Your task to perform on an android device: Show the shopping cart on target.com. Image 0: 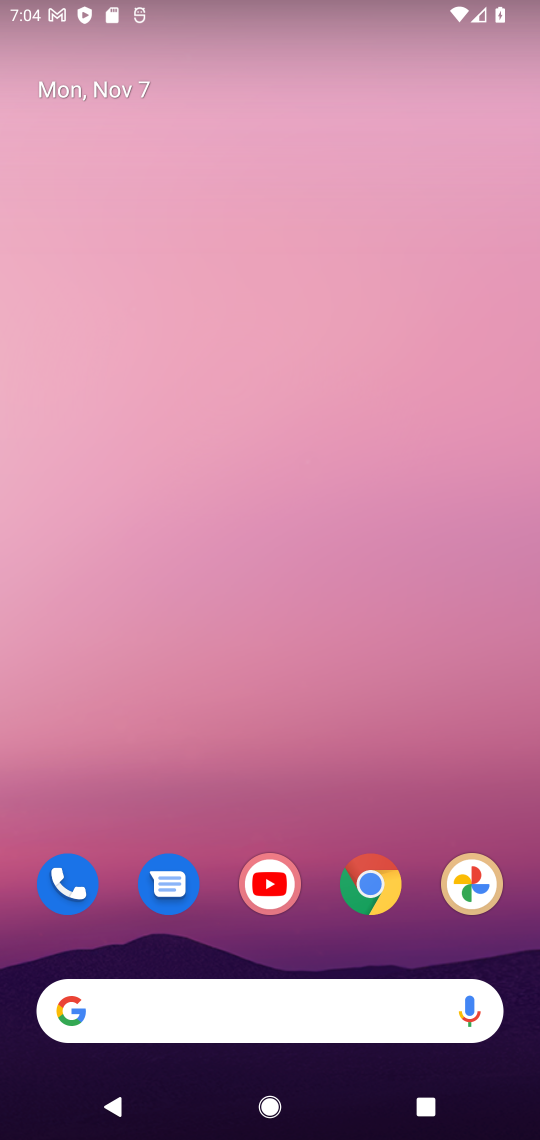
Step 0: click (368, 887)
Your task to perform on an android device: Show the shopping cart on target.com. Image 1: 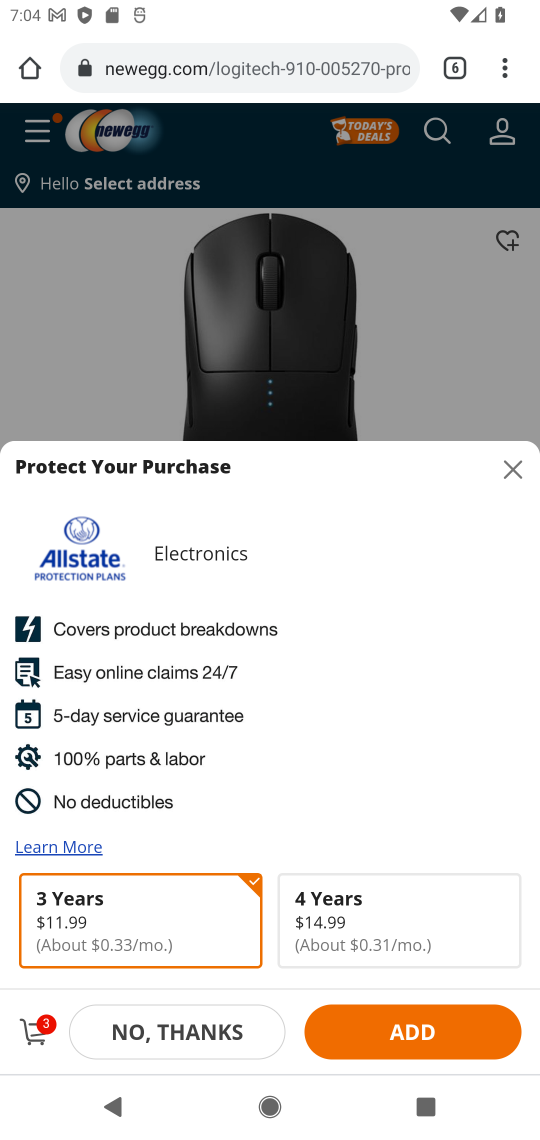
Step 1: click (516, 471)
Your task to perform on an android device: Show the shopping cart on target.com. Image 2: 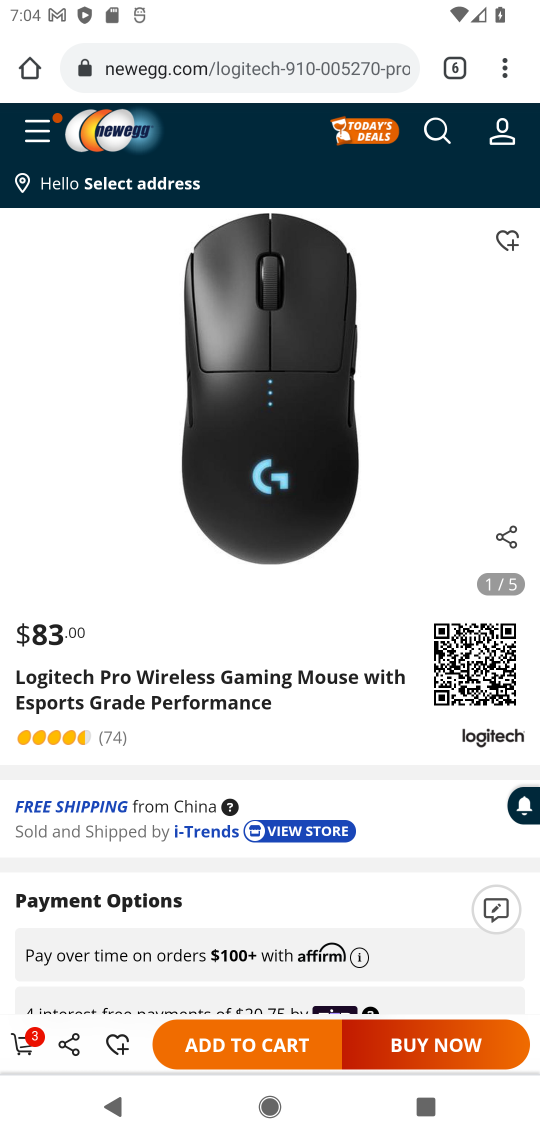
Step 2: click (455, 67)
Your task to perform on an android device: Show the shopping cart on target.com. Image 3: 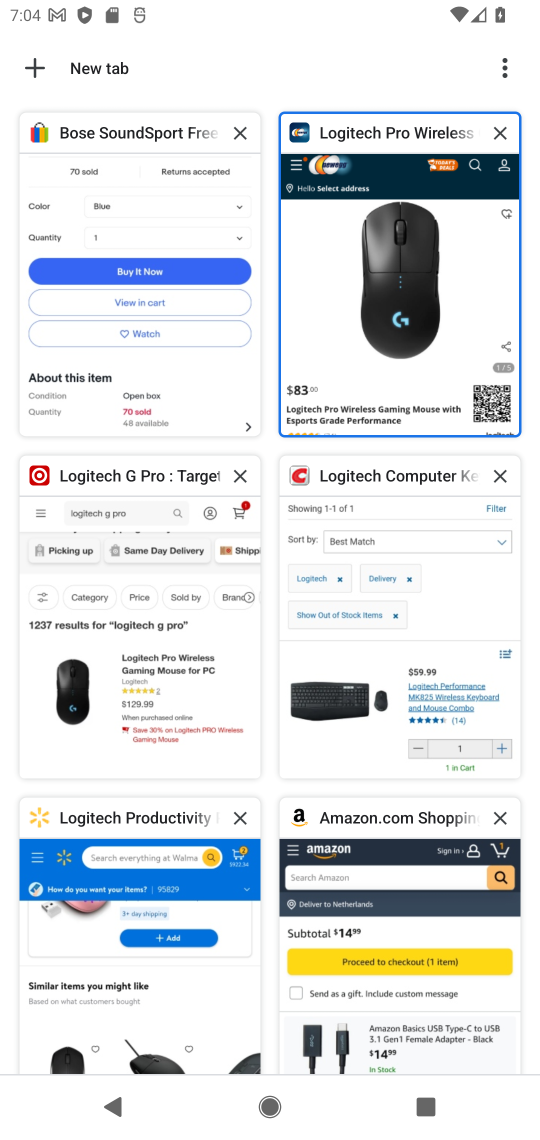
Step 3: click (183, 647)
Your task to perform on an android device: Show the shopping cart on target.com. Image 4: 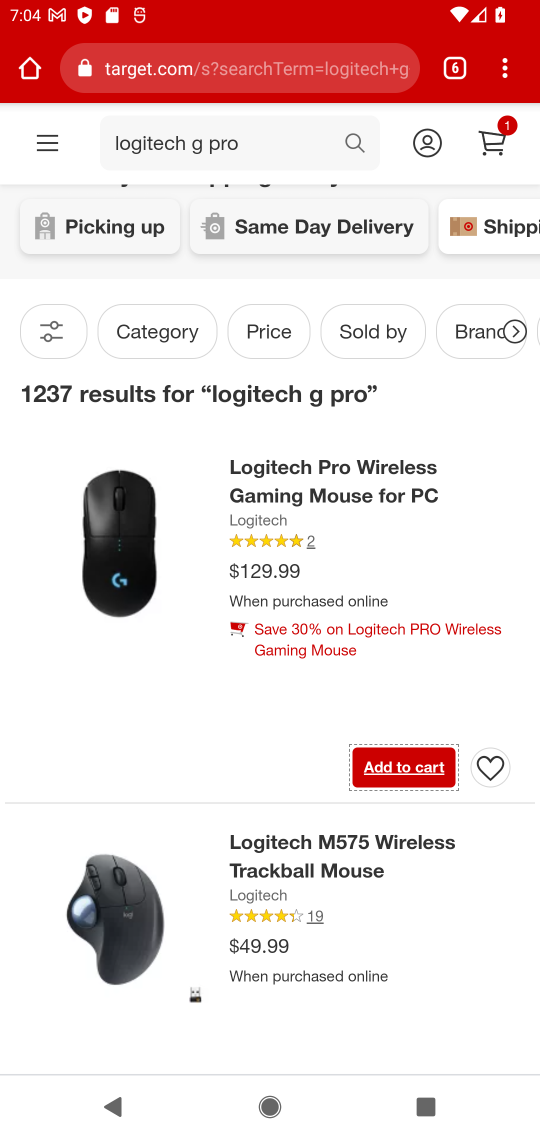
Step 4: click (494, 125)
Your task to perform on an android device: Show the shopping cart on target.com. Image 5: 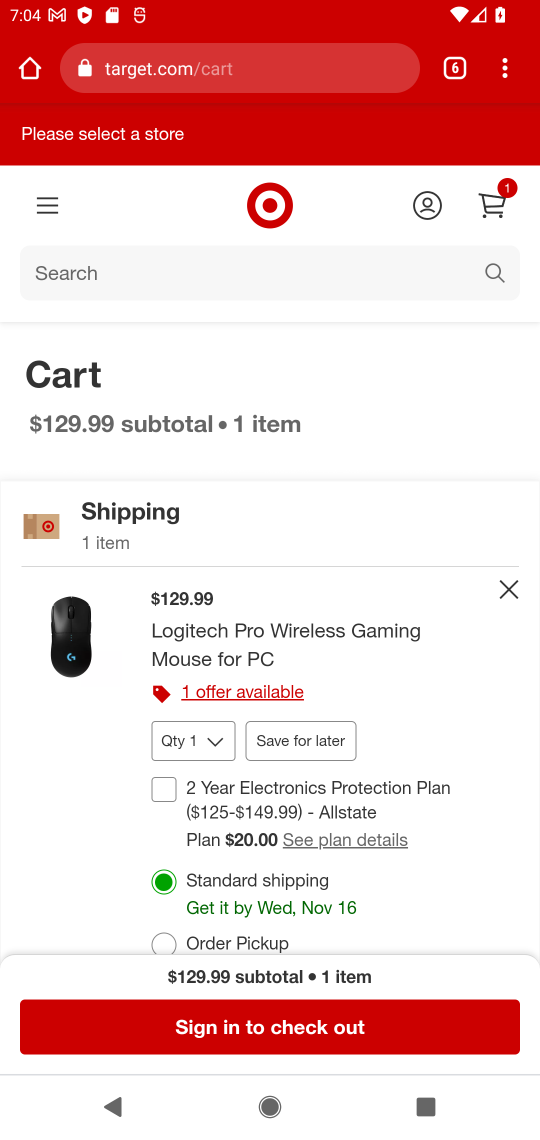
Step 5: task complete